Your task to perform on an android device: Do I have any events today? Image 0: 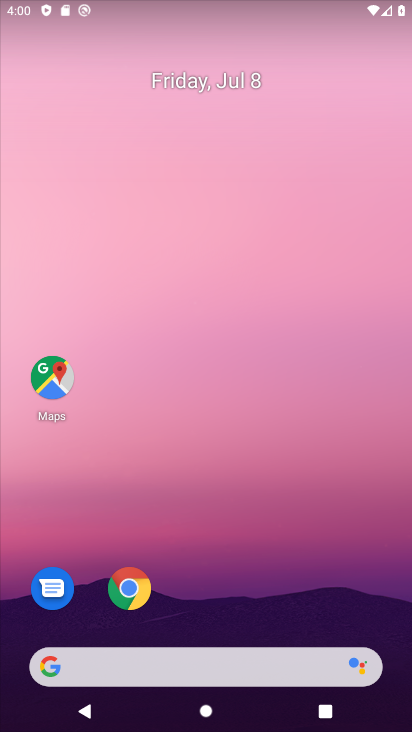
Step 0: drag from (280, 689) to (119, 41)
Your task to perform on an android device: Do I have any events today? Image 1: 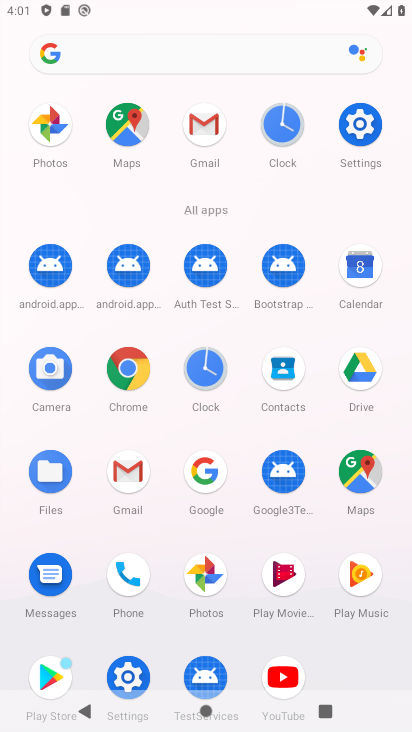
Step 1: click (361, 274)
Your task to perform on an android device: Do I have any events today? Image 2: 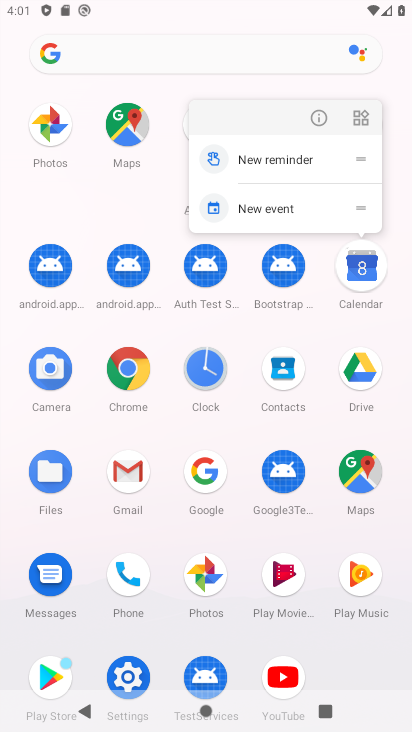
Step 2: click (369, 265)
Your task to perform on an android device: Do I have any events today? Image 3: 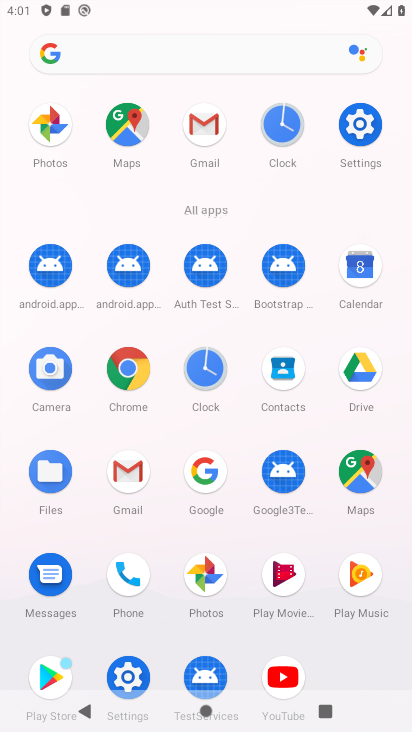
Step 3: click (366, 262)
Your task to perform on an android device: Do I have any events today? Image 4: 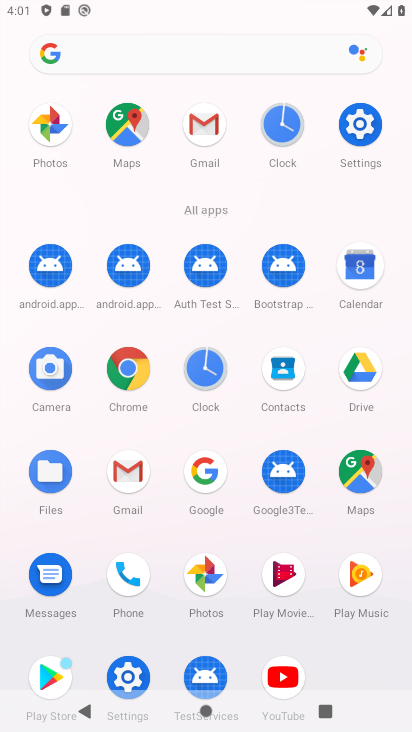
Step 4: click (369, 260)
Your task to perform on an android device: Do I have any events today? Image 5: 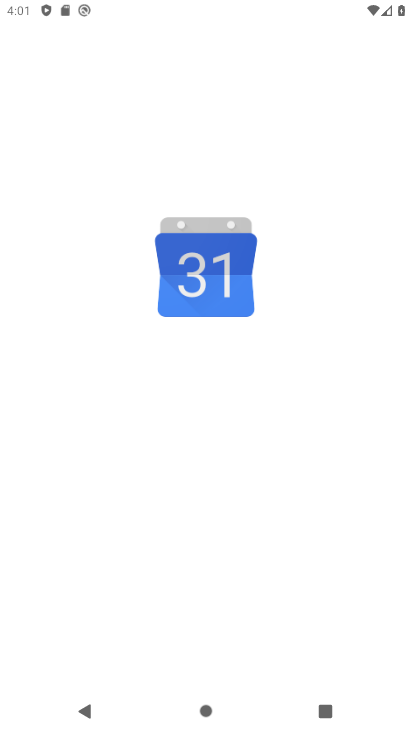
Step 5: click (350, 251)
Your task to perform on an android device: Do I have any events today? Image 6: 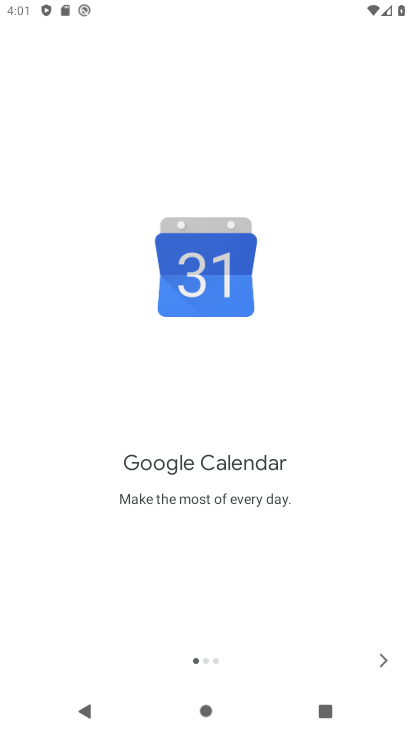
Step 6: click (388, 672)
Your task to perform on an android device: Do I have any events today? Image 7: 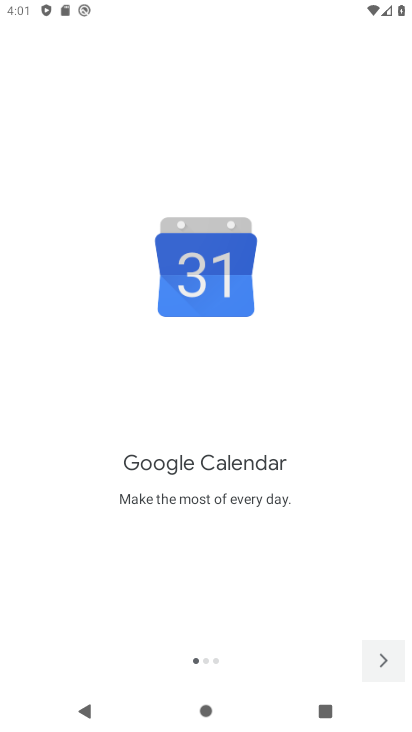
Step 7: click (377, 662)
Your task to perform on an android device: Do I have any events today? Image 8: 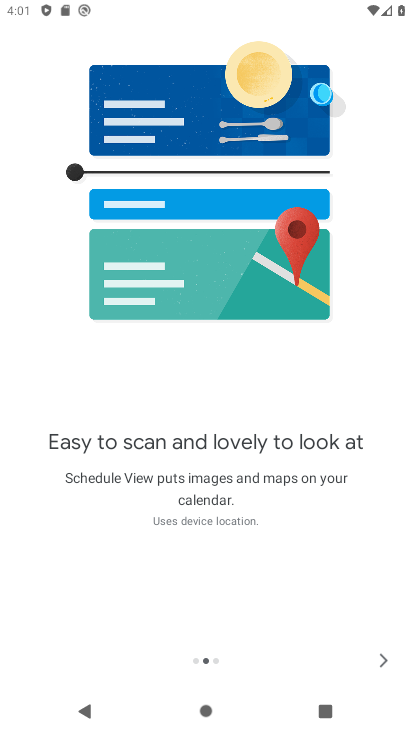
Step 8: click (377, 660)
Your task to perform on an android device: Do I have any events today? Image 9: 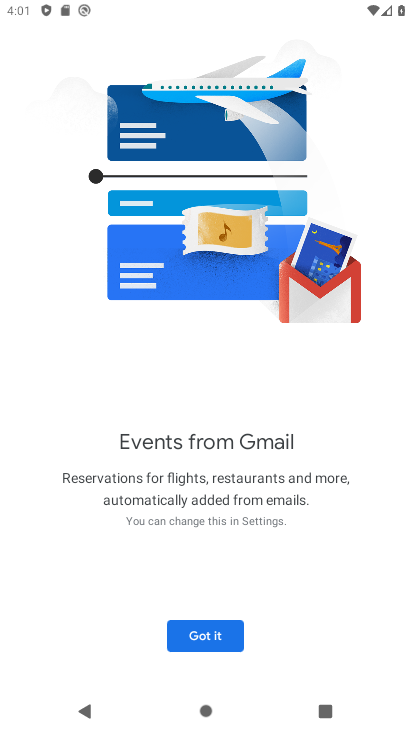
Step 9: click (226, 639)
Your task to perform on an android device: Do I have any events today? Image 10: 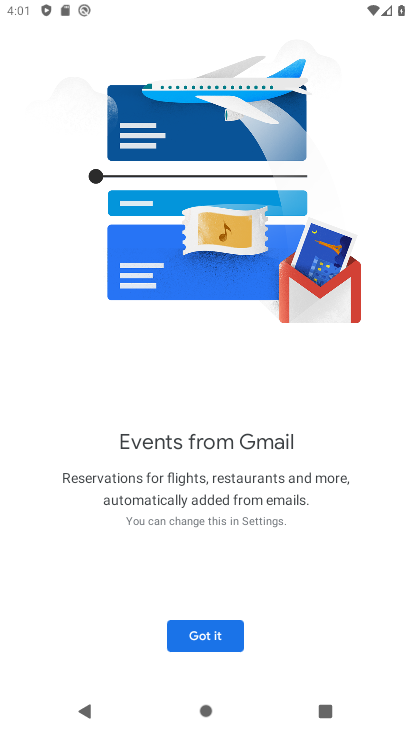
Step 10: click (223, 642)
Your task to perform on an android device: Do I have any events today? Image 11: 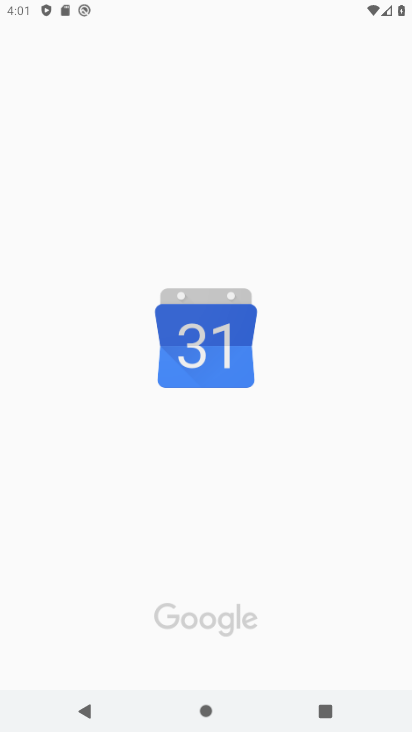
Step 11: click (226, 645)
Your task to perform on an android device: Do I have any events today? Image 12: 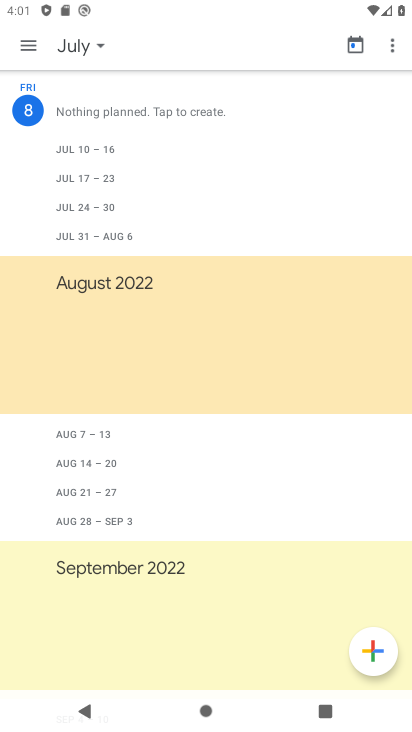
Step 12: click (100, 47)
Your task to perform on an android device: Do I have any events today? Image 13: 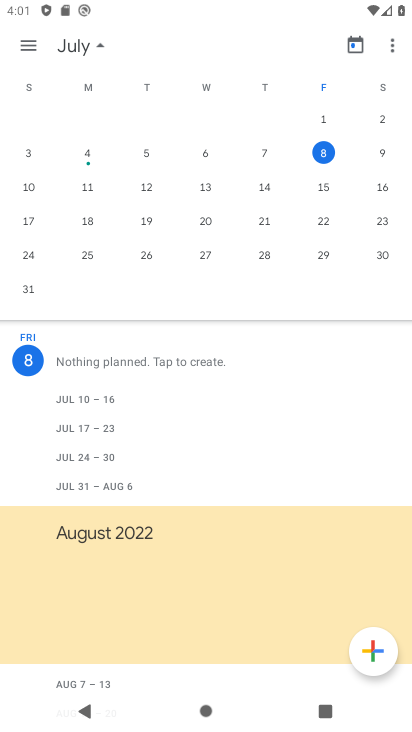
Step 13: click (323, 148)
Your task to perform on an android device: Do I have any events today? Image 14: 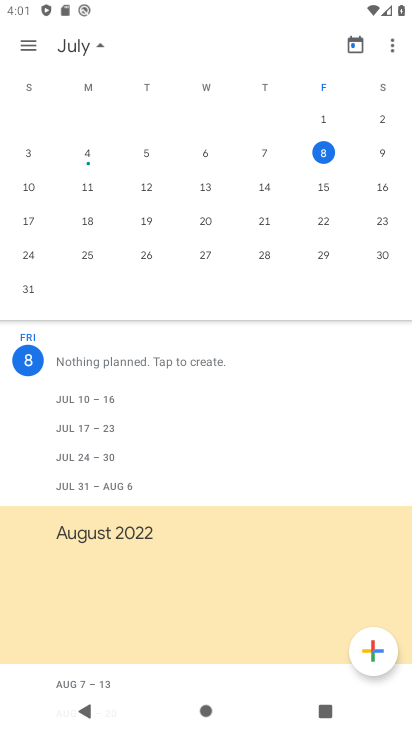
Step 14: click (323, 148)
Your task to perform on an android device: Do I have any events today? Image 15: 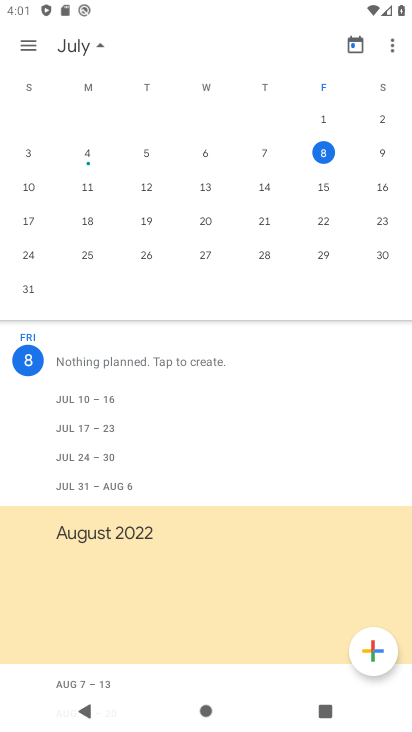
Step 15: task complete